Your task to perform on an android device: change text size in settings app Image 0: 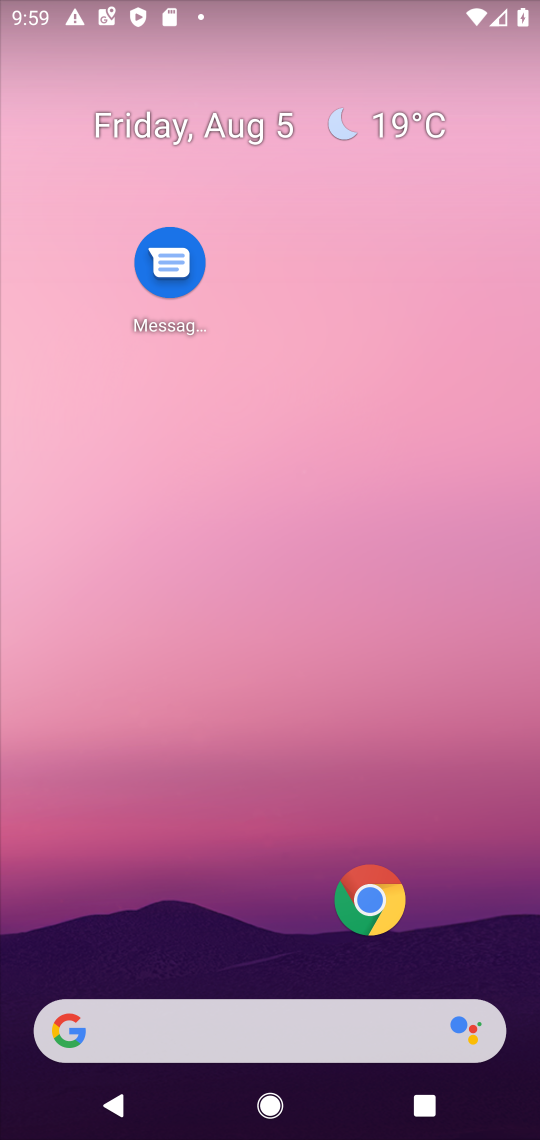
Step 0: press home button
Your task to perform on an android device: change text size in settings app Image 1: 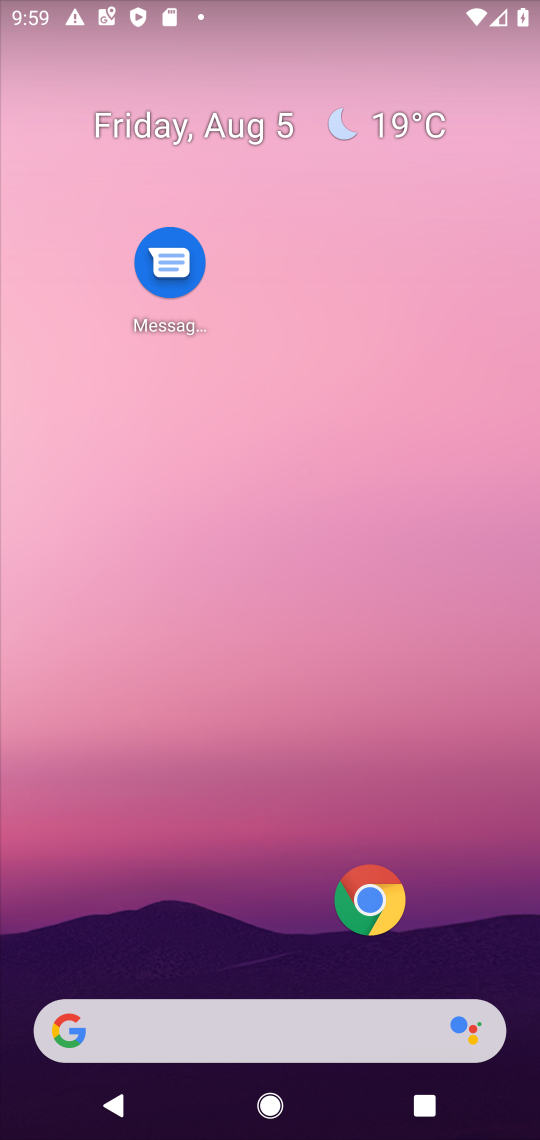
Step 1: drag from (259, 939) to (317, 35)
Your task to perform on an android device: change text size in settings app Image 2: 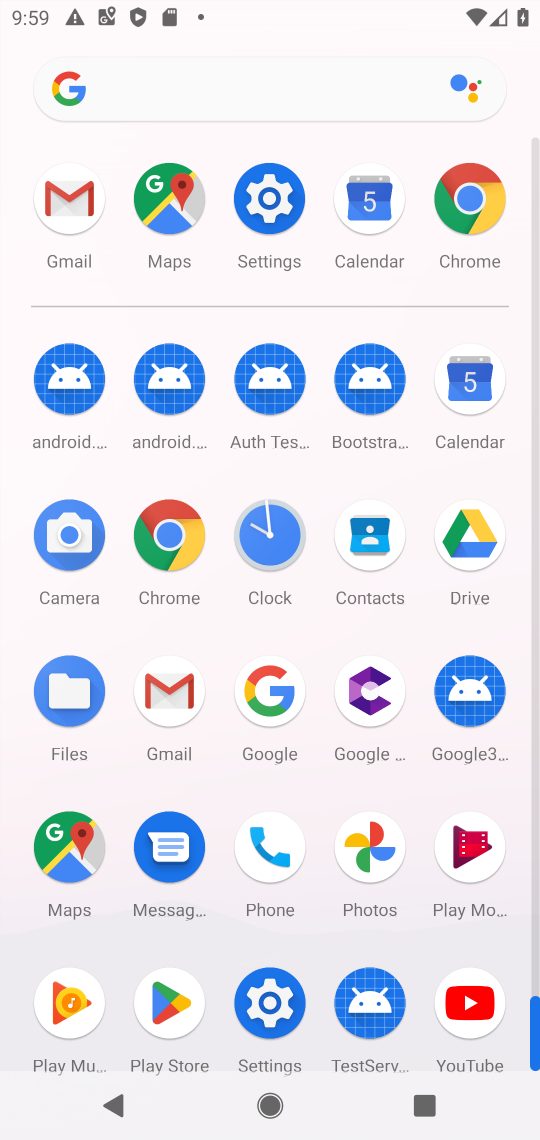
Step 2: click (275, 984)
Your task to perform on an android device: change text size in settings app Image 3: 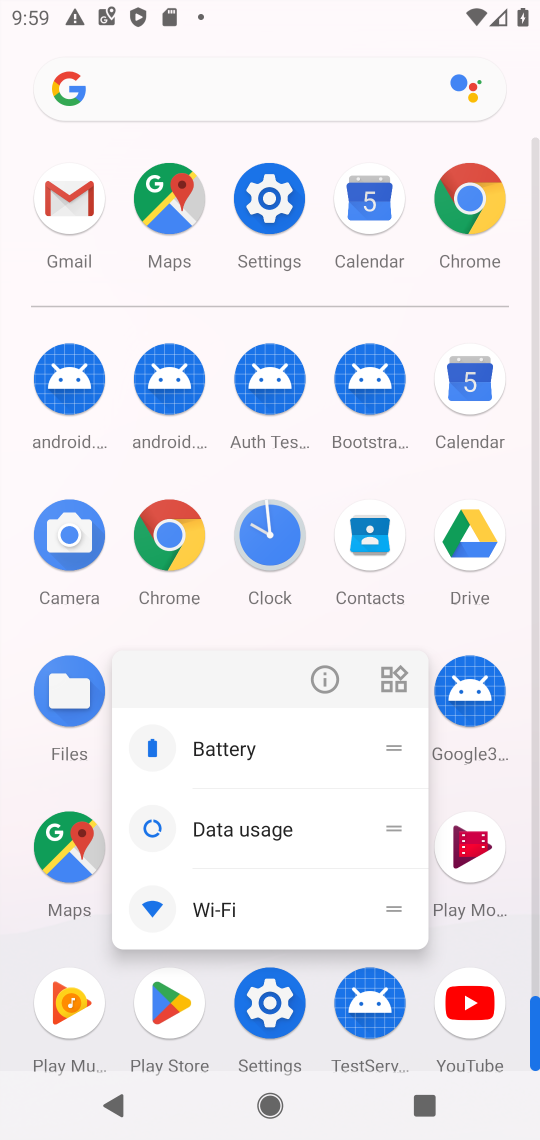
Step 3: click (267, 994)
Your task to perform on an android device: change text size in settings app Image 4: 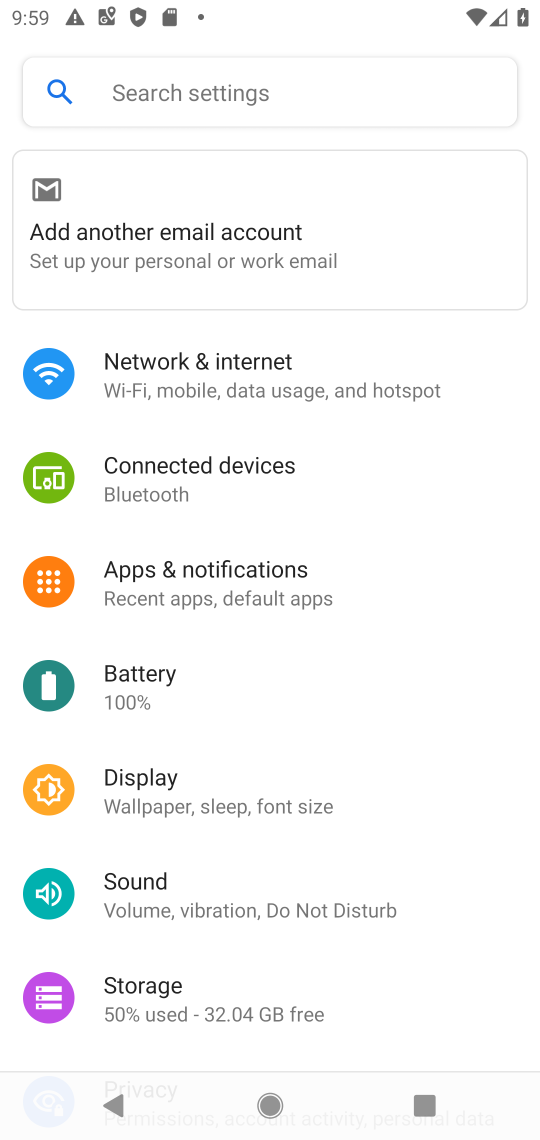
Step 4: click (165, 789)
Your task to perform on an android device: change text size in settings app Image 5: 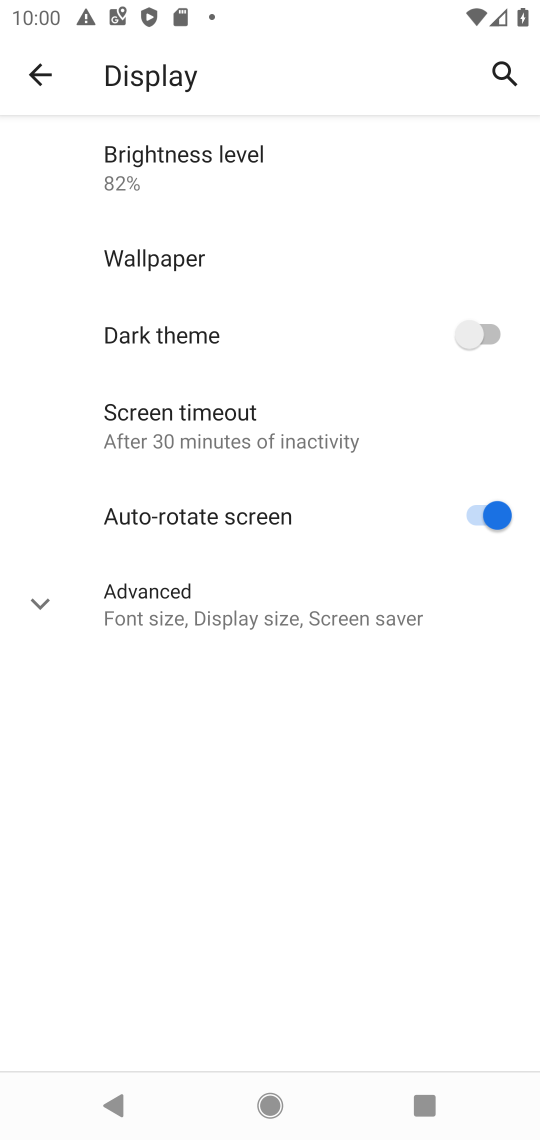
Step 5: click (158, 613)
Your task to perform on an android device: change text size in settings app Image 6: 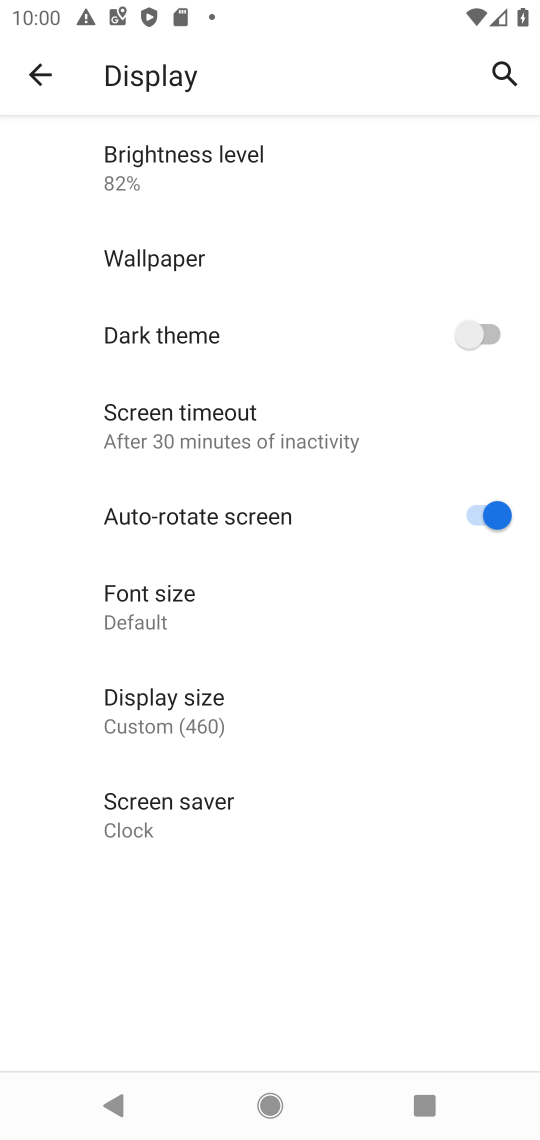
Step 6: click (125, 621)
Your task to perform on an android device: change text size in settings app Image 7: 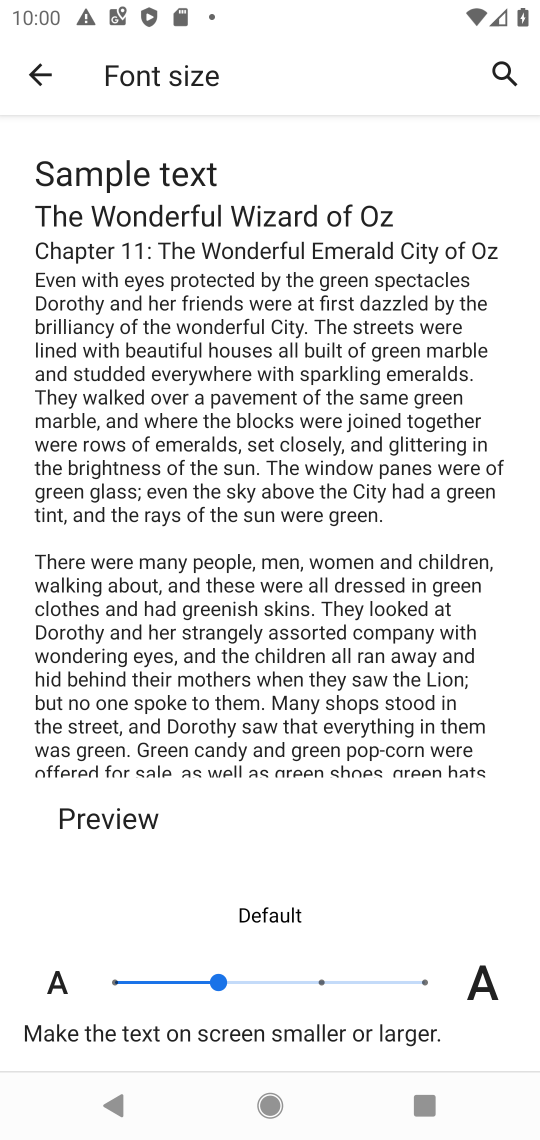
Step 7: click (123, 969)
Your task to perform on an android device: change text size in settings app Image 8: 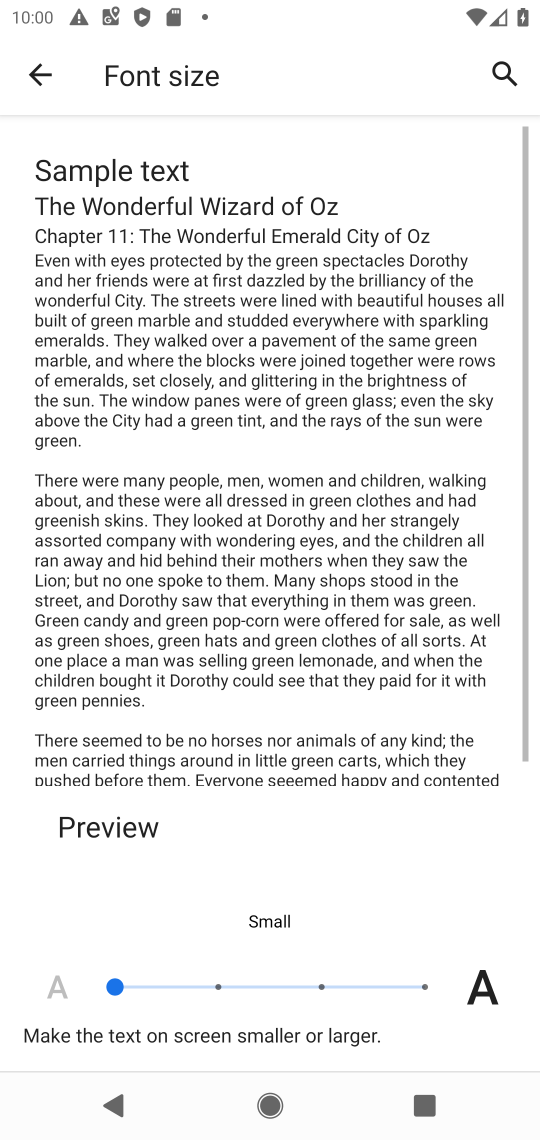
Step 8: task complete